Your task to perform on an android device: turn off wifi Image 0: 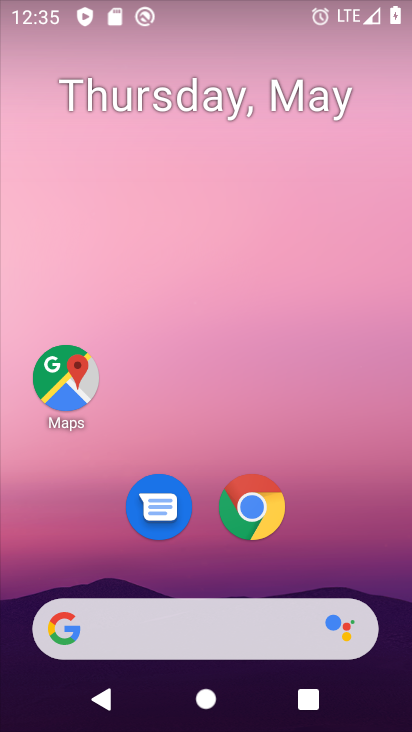
Step 0: drag from (209, 571) to (191, 204)
Your task to perform on an android device: turn off wifi Image 1: 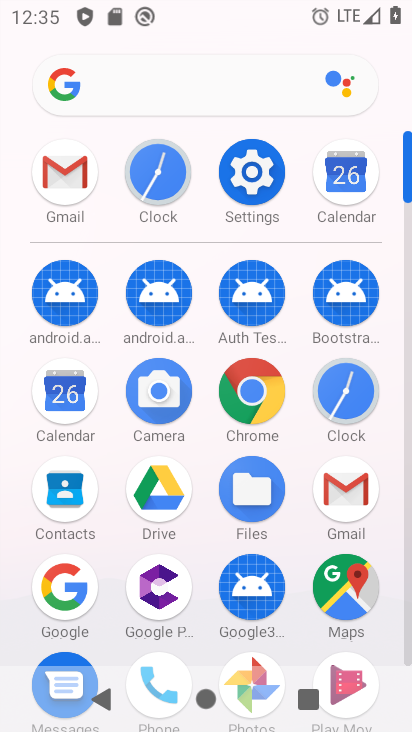
Step 1: click (233, 196)
Your task to perform on an android device: turn off wifi Image 2: 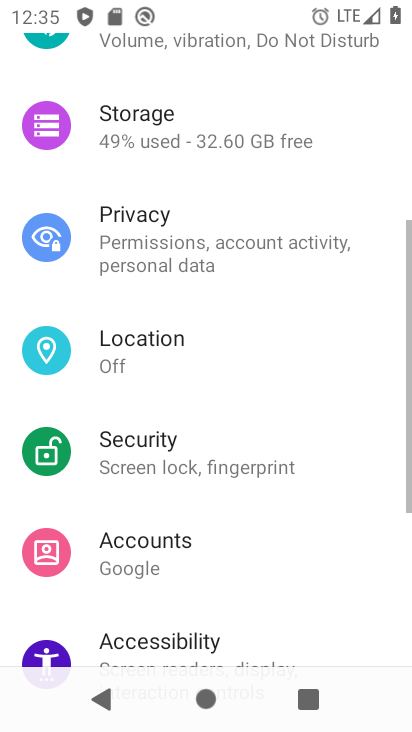
Step 2: drag from (233, 196) to (267, 478)
Your task to perform on an android device: turn off wifi Image 3: 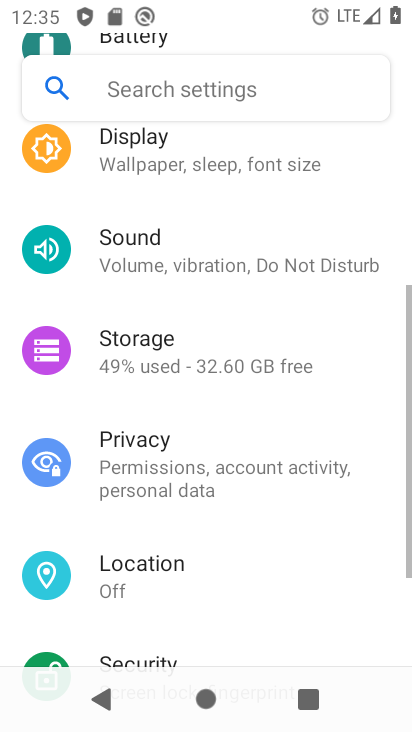
Step 3: drag from (213, 211) to (248, 472)
Your task to perform on an android device: turn off wifi Image 4: 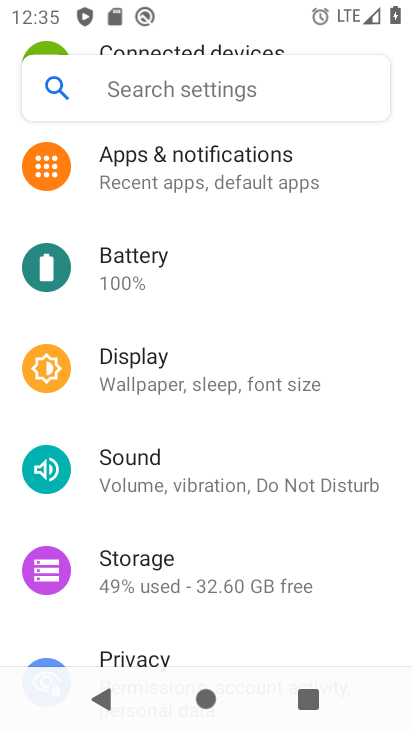
Step 4: drag from (221, 196) to (239, 502)
Your task to perform on an android device: turn off wifi Image 5: 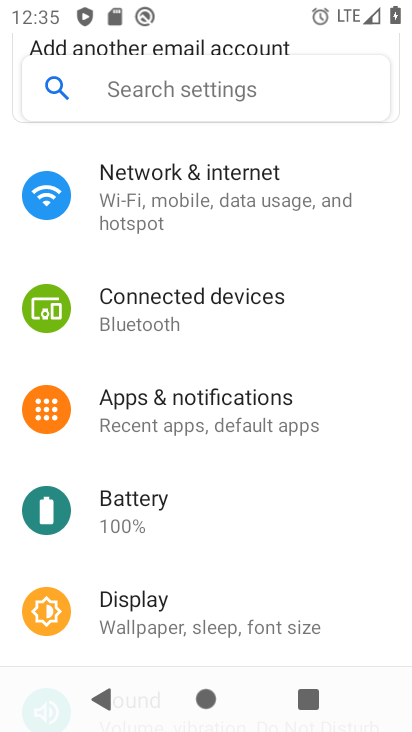
Step 5: click (212, 178)
Your task to perform on an android device: turn off wifi Image 6: 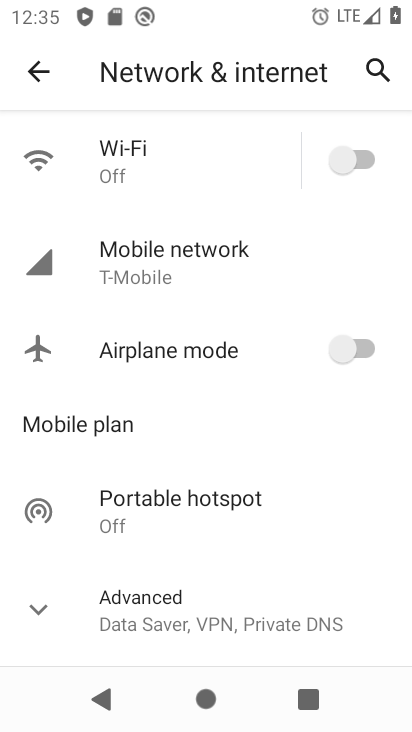
Step 6: task complete